Your task to perform on an android device: turn off airplane mode Image 0: 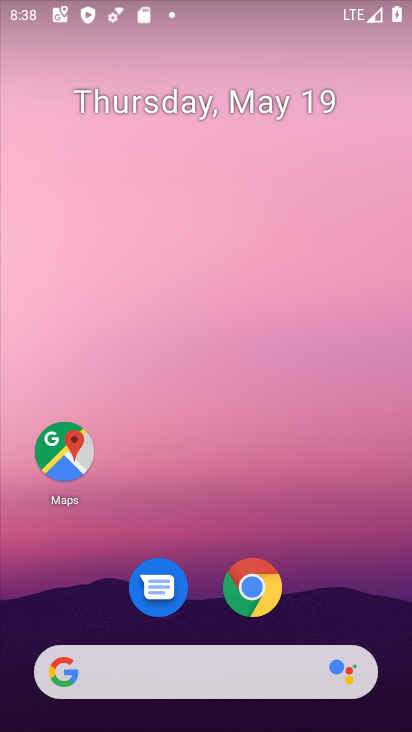
Step 0: drag from (312, 548) to (222, 9)
Your task to perform on an android device: turn off airplane mode Image 1: 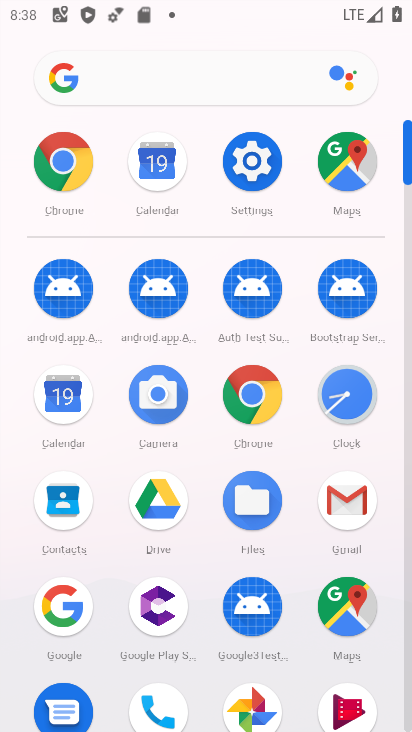
Step 1: click (247, 157)
Your task to perform on an android device: turn off airplane mode Image 2: 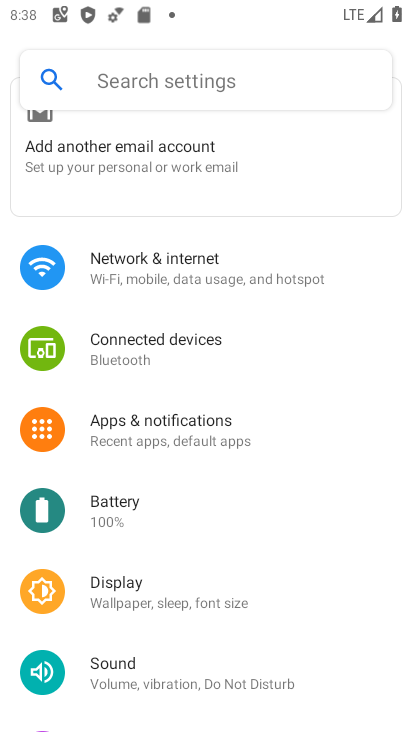
Step 2: click (230, 271)
Your task to perform on an android device: turn off airplane mode Image 3: 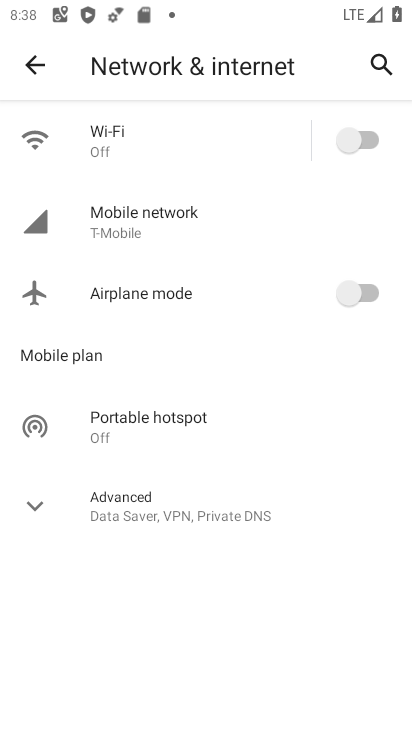
Step 3: click (54, 503)
Your task to perform on an android device: turn off airplane mode Image 4: 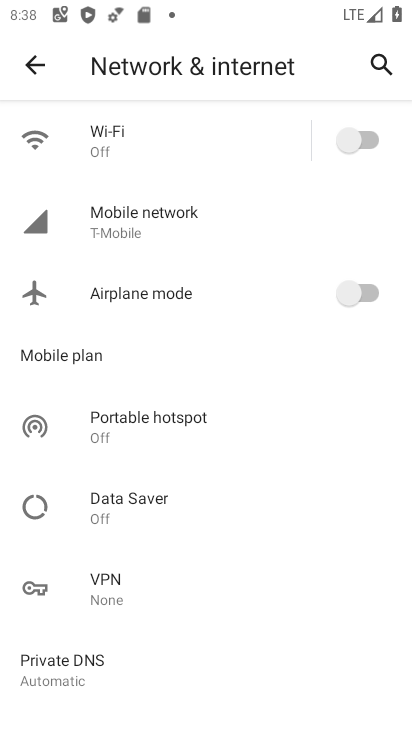
Step 4: task complete